Your task to perform on an android device: change the clock display to digital Image 0: 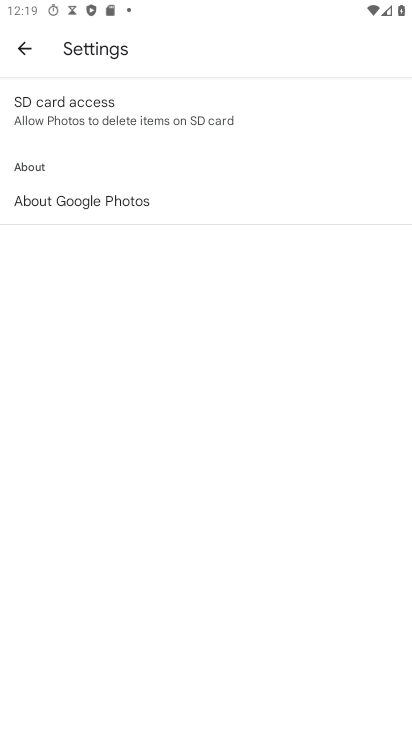
Step 0: press back button
Your task to perform on an android device: change the clock display to digital Image 1: 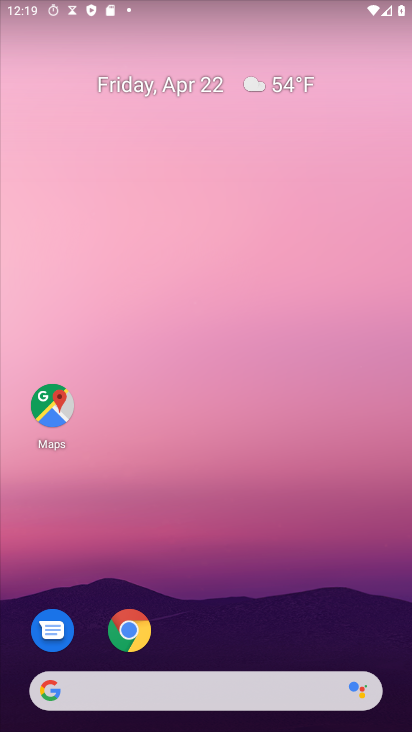
Step 1: drag from (190, 651) to (253, 151)
Your task to perform on an android device: change the clock display to digital Image 2: 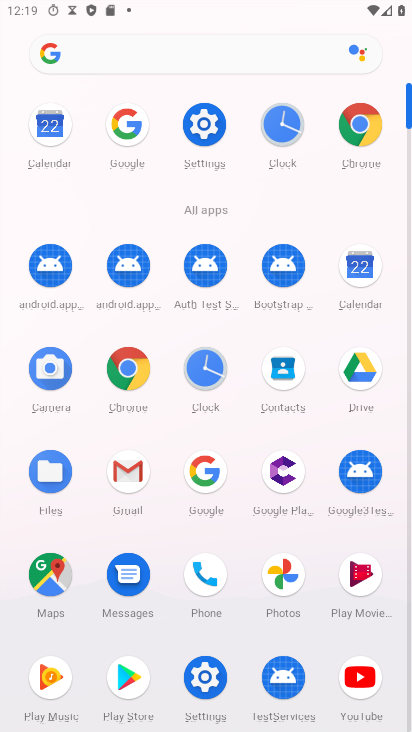
Step 2: click (199, 359)
Your task to perform on an android device: change the clock display to digital Image 3: 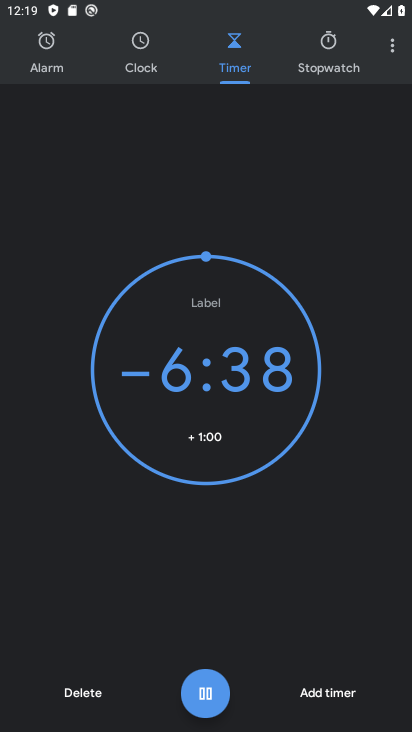
Step 3: click (393, 48)
Your task to perform on an android device: change the clock display to digital Image 4: 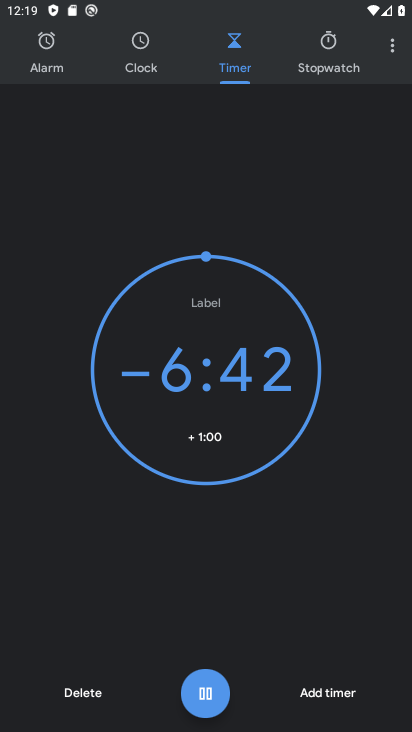
Step 4: click (406, 6)
Your task to perform on an android device: change the clock display to digital Image 5: 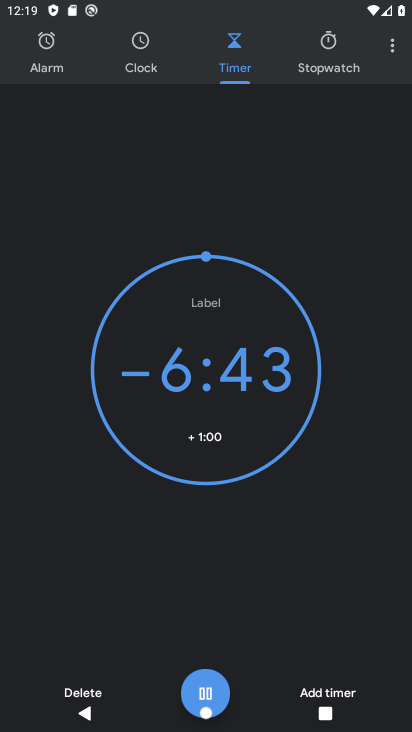
Step 5: click (397, 50)
Your task to perform on an android device: change the clock display to digital Image 6: 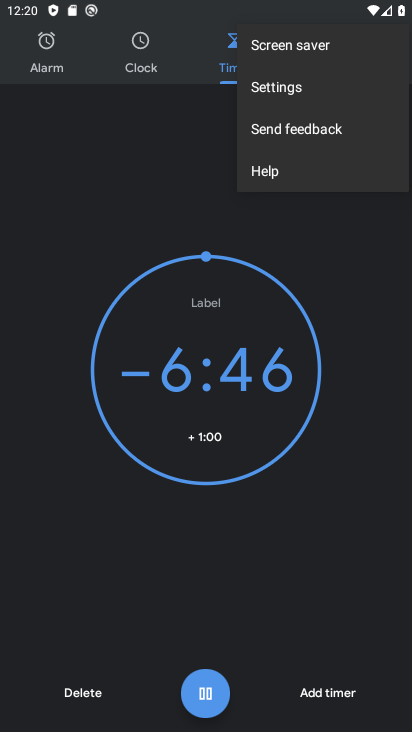
Step 6: click (303, 81)
Your task to perform on an android device: change the clock display to digital Image 7: 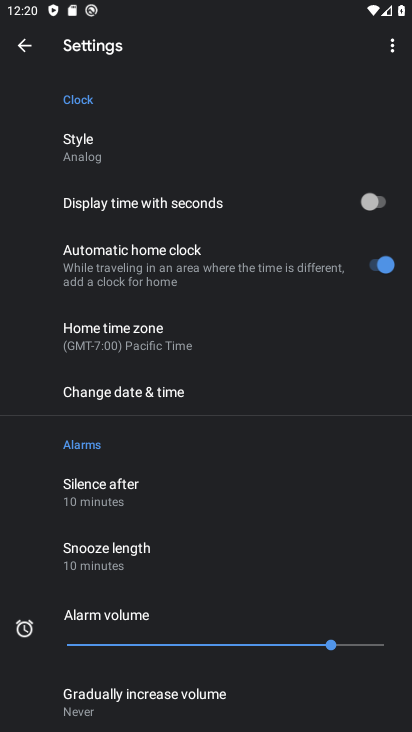
Step 7: click (114, 139)
Your task to perform on an android device: change the clock display to digital Image 8: 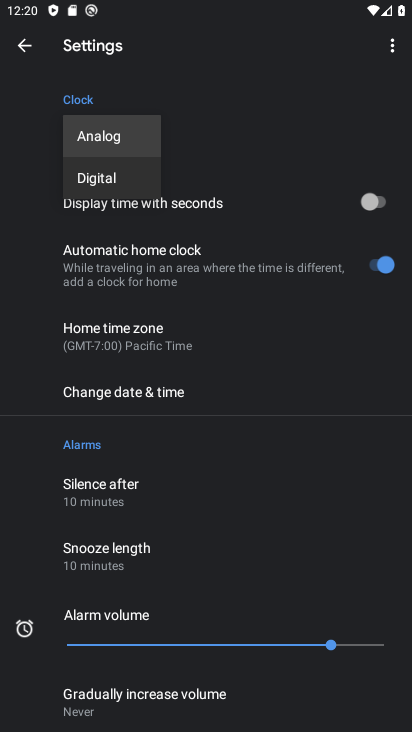
Step 8: click (103, 174)
Your task to perform on an android device: change the clock display to digital Image 9: 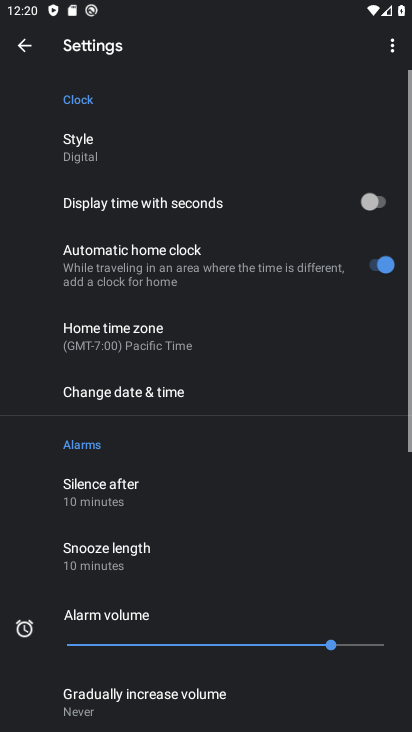
Step 9: task complete